Your task to perform on an android device: turn off location Image 0: 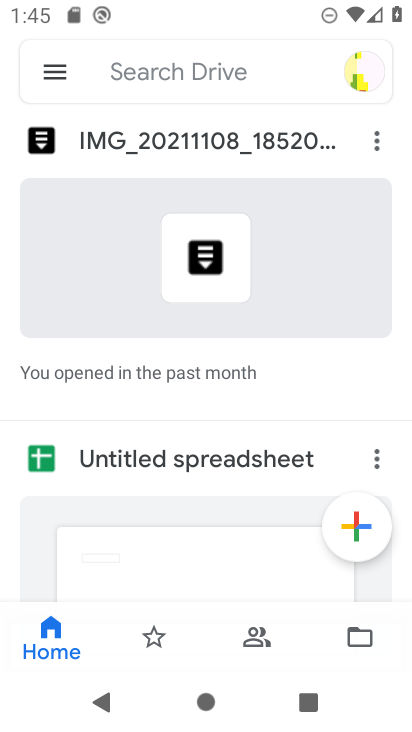
Step 0: press home button
Your task to perform on an android device: turn off location Image 1: 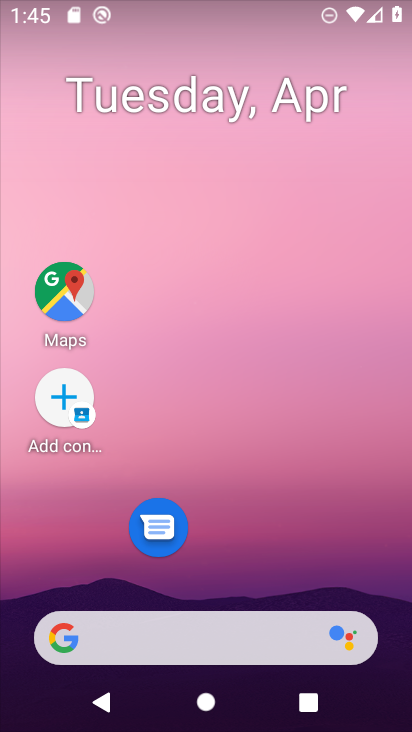
Step 1: drag from (251, 531) to (229, 58)
Your task to perform on an android device: turn off location Image 2: 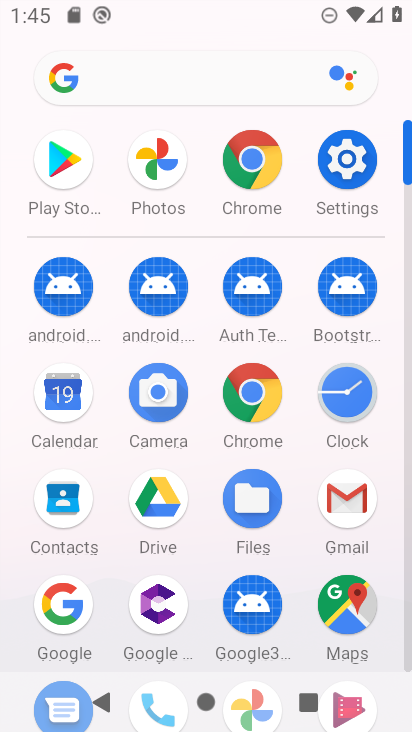
Step 2: click (345, 165)
Your task to perform on an android device: turn off location Image 3: 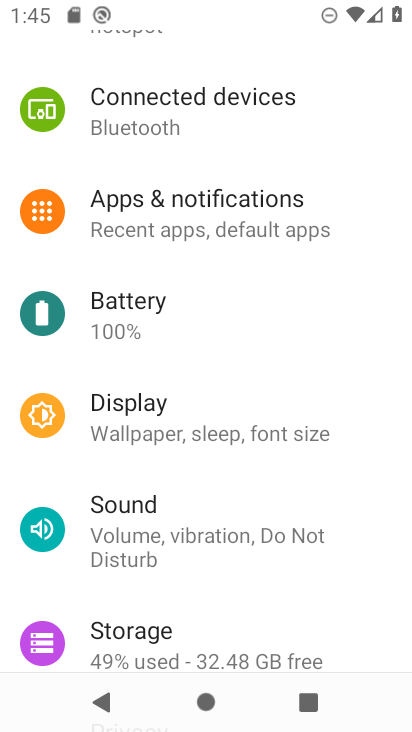
Step 3: drag from (195, 484) to (198, 336)
Your task to perform on an android device: turn off location Image 4: 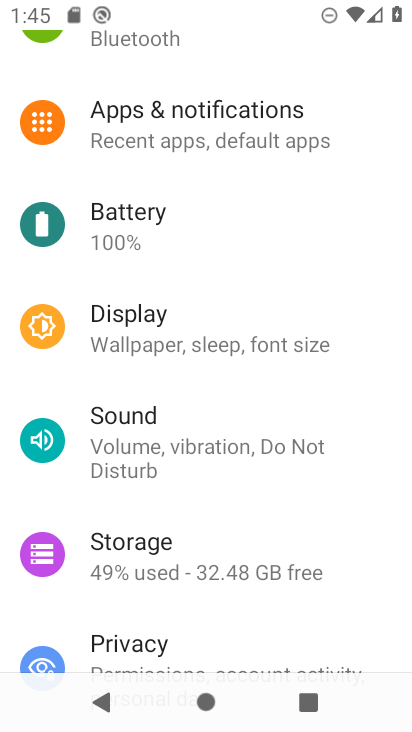
Step 4: drag from (230, 486) to (228, 337)
Your task to perform on an android device: turn off location Image 5: 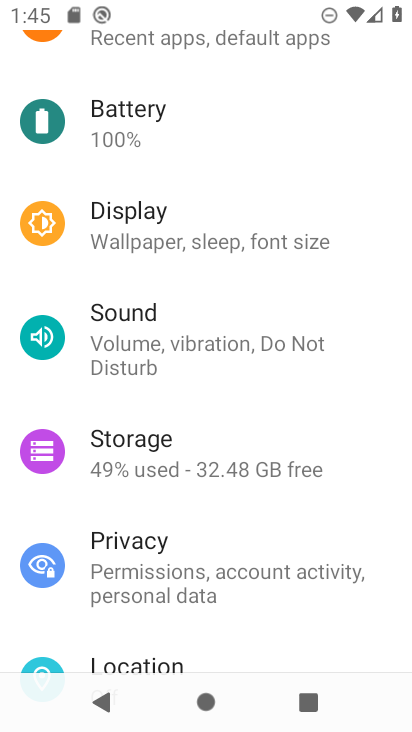
Step 5: drag from (208, 511) to (231, 405)
Your task to perform on an android device: turn off location Image 6: 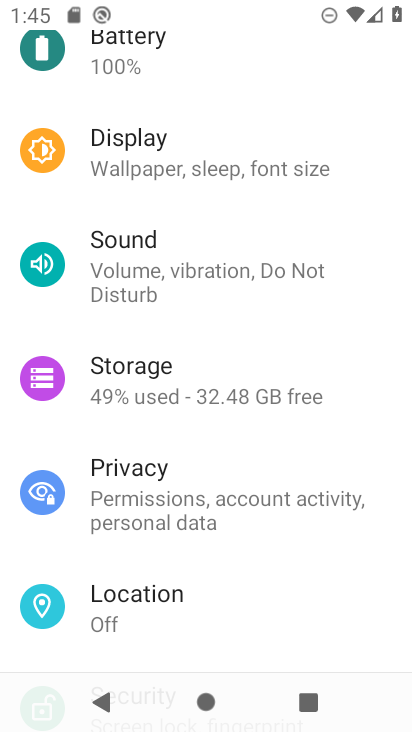
Step 6: drag from (226, 561) to (249, 415)
Your task to perform on an android device: turn off location Image 7: 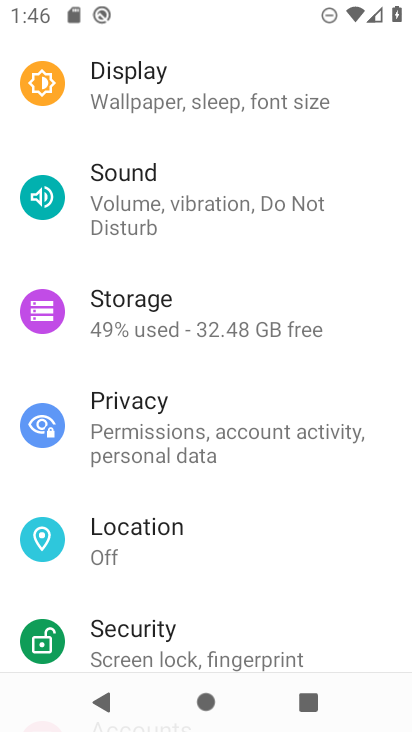
Step 7: click (149, 529)
Your task to perform on an android device: turn off location Image 8: 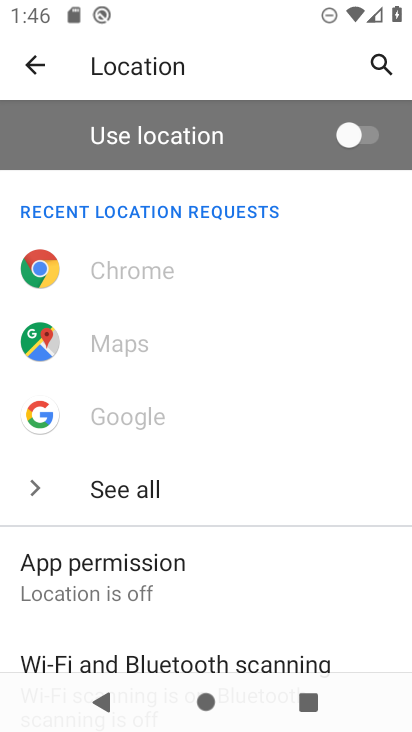
Step 8: task complete